Your task to perform on an android device: find which apps use the phone's location Image 0: 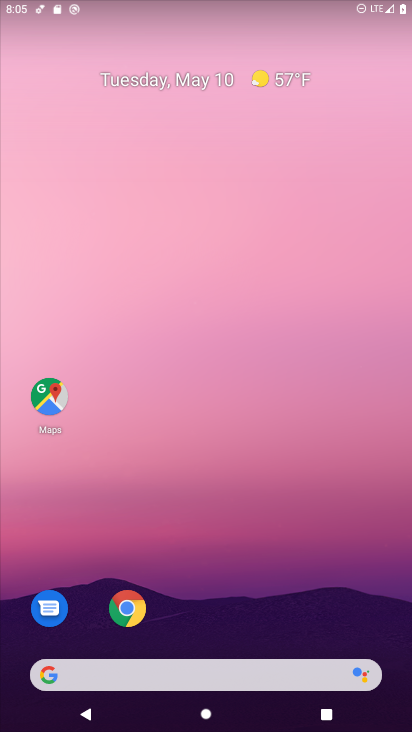
Step 0: drag from (334, 595) to (308, 25)
Your task to perform on an android device: find which apps use the phone's location Image 1: 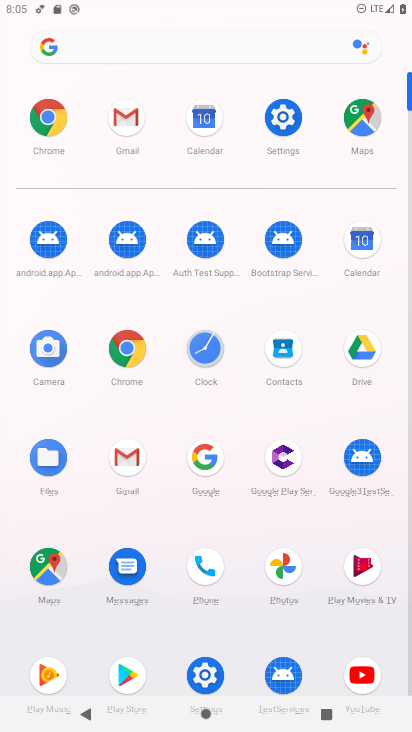
Step 1: click (198, 667)
Your task to perform on an android device: find which apps use the phone's location Image 2: 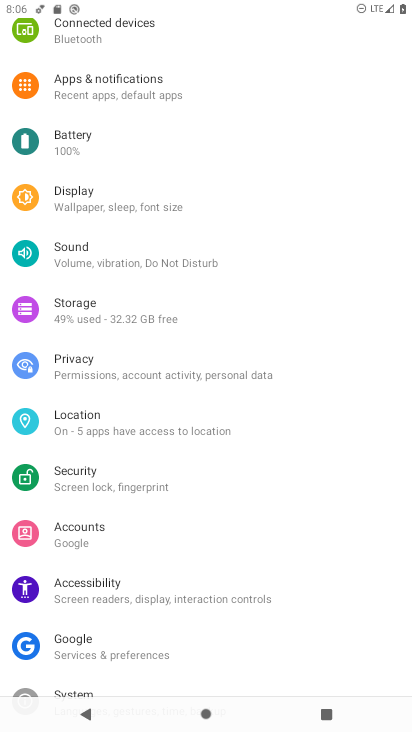
Step 2: click (130, 441)
Your task to perform on an android device: find which apps use the phone's location Image 3: 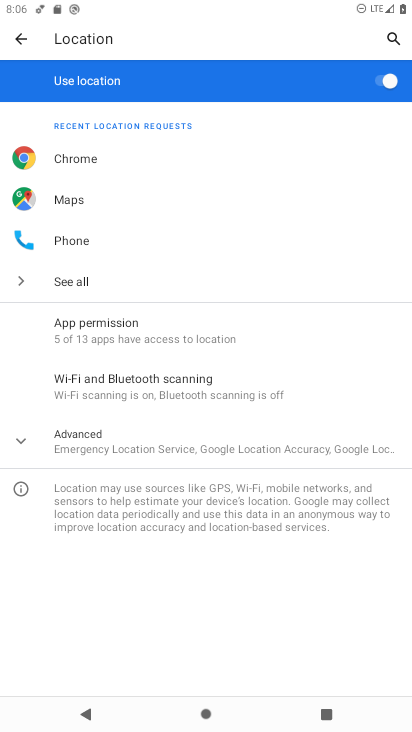
Step 3: click (132, 335)
Your task to perform on an android device: find which apps use the phone's location Image 4: 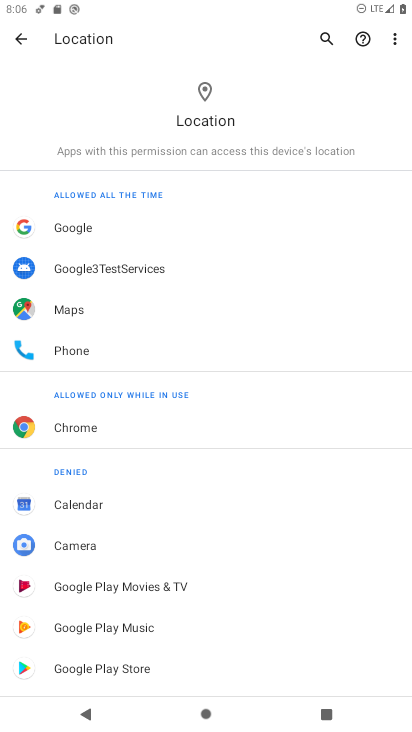
Step 4: click (80, 346)
Your task to perform on an android device: find which apps use the phone's location Image 5: 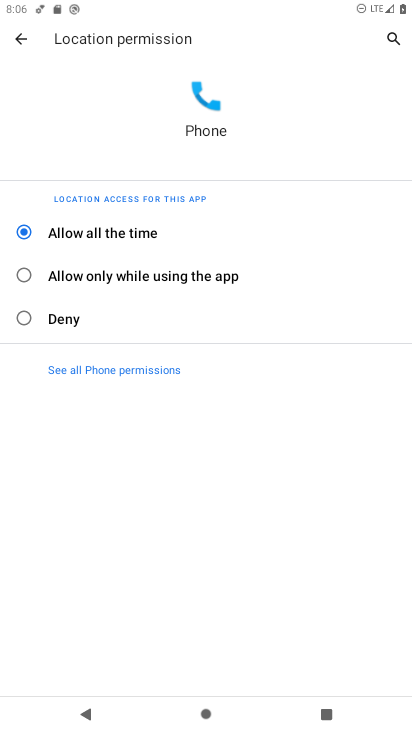
Step 5: task complete